Your task to perform on an android device: Is it going to rain today? Image 0: 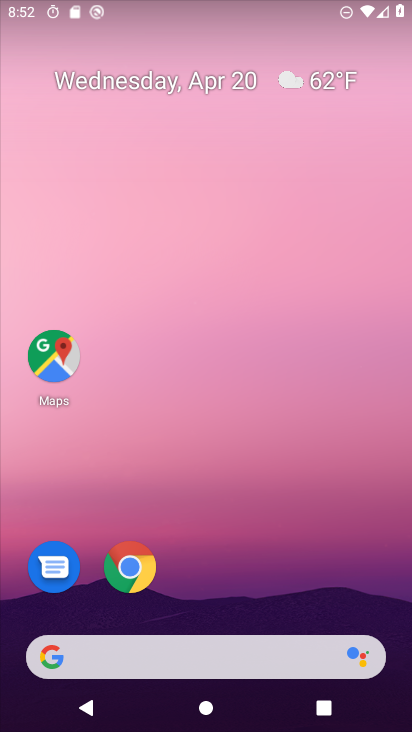
Step 0: click (325, 86)
Your task to perform on an android device: Is it going to rain today? Image 1: 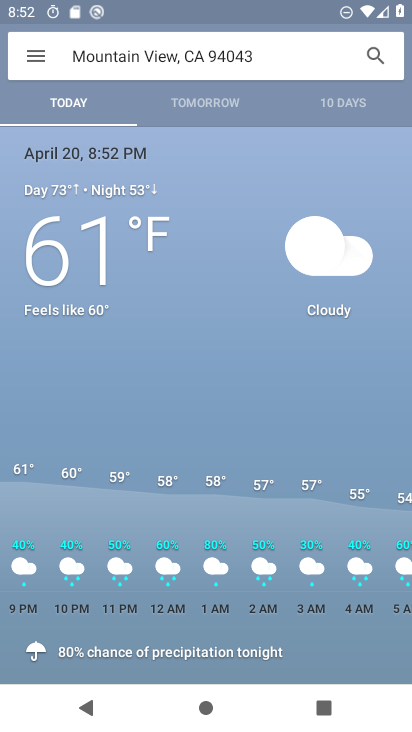
Step 1: task complete